Your task to perform on an android device: open the mobile data screen to see how much data has been used Image 0: 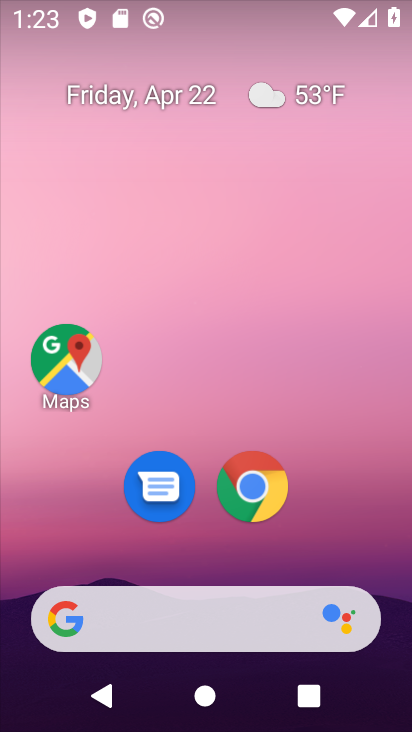
Step 0: drag from (173, 569) to (407, 79)
Your task to perform on an android device: open the mobile data screen to see how much data has been used Image 1: 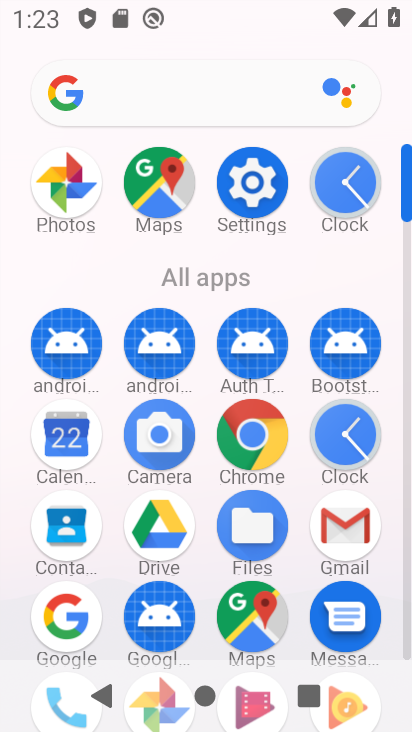
Step 1: click (235, 173)
Your task to perform on an android device: open the mobile data screen to see how much data has been used Image 2: 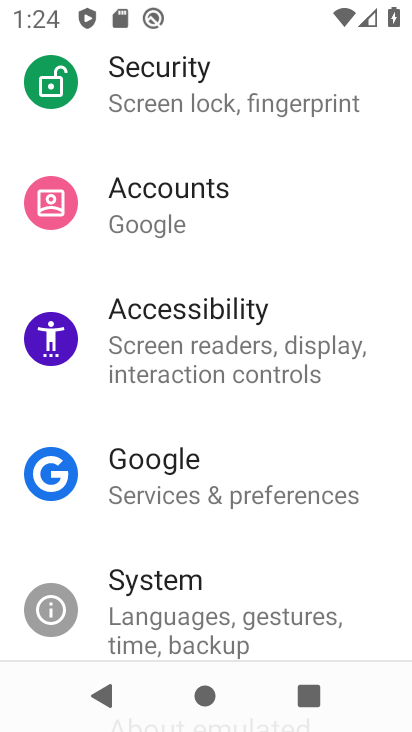
Step 2: drag from (230, 152) to (165, 557)
Your task to perform on an android device: open the mobile data screen to see how much data has been used Image 3: 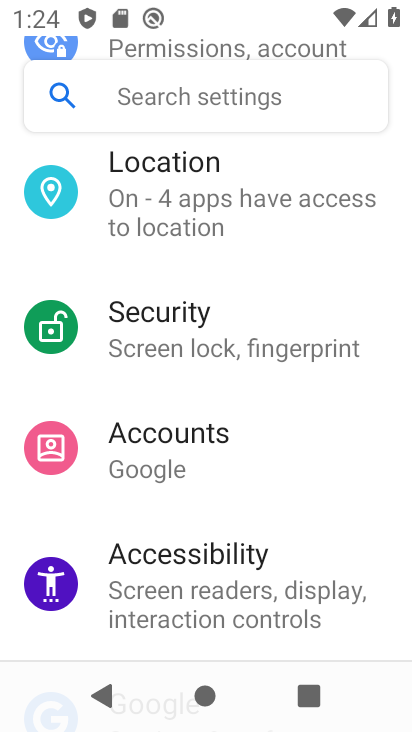
Step 3: drag from (115, 193) to (83, 716)
Your task to perform on an android device: open the mobile data screen to see how much data has been used Image 4: 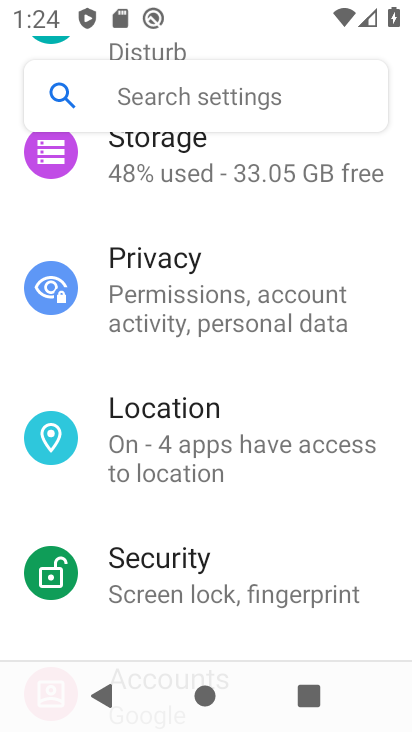
Step 4: drag from (179, 251) to (245, 672)
Your task to perform on an android device: open the mobile data screen to see how much data has been used Image 5: 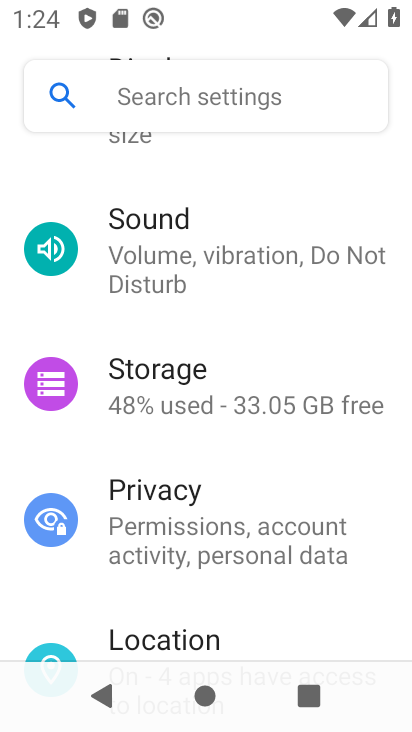
Step 5: drag from (237, 220) to (261, 581)
Your task to perform on an android device: open the mobile data screen to see how much data has been used Image 6: 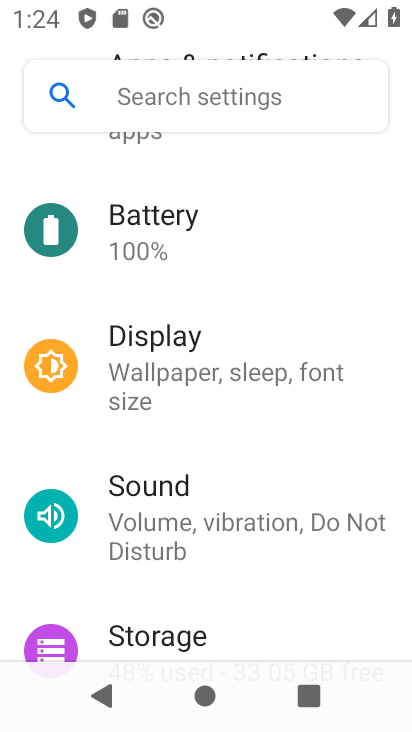
Step 6: drag from (188, 246) to (186, 678)
Your task to perform on an android device: open the mobile data screen to see how much data has been used Image 7: 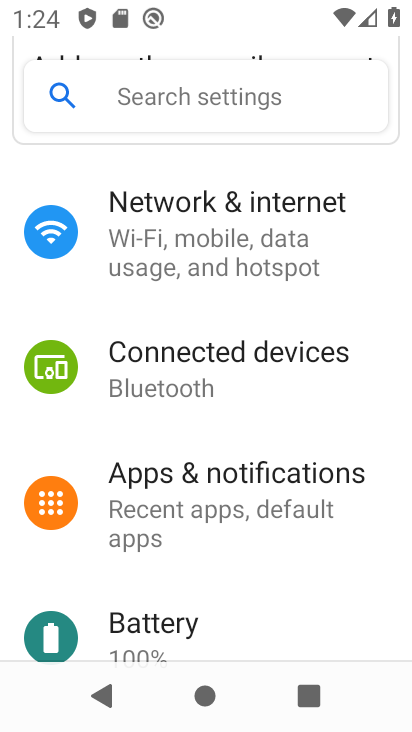
Step 7: click (186, 219)
Your task to perform on an android device: open the mobile data screen to see how much data has been used Image 8: 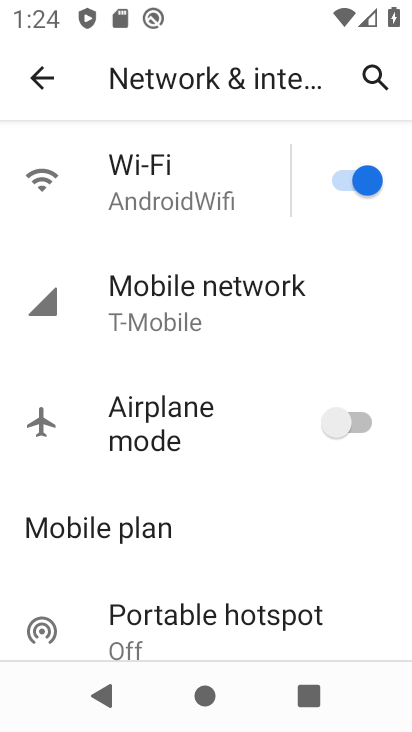
Step 8: click (268, 298)
Your task to perform on an android device: open the mobile data screen to see how much data has been used Image 9: 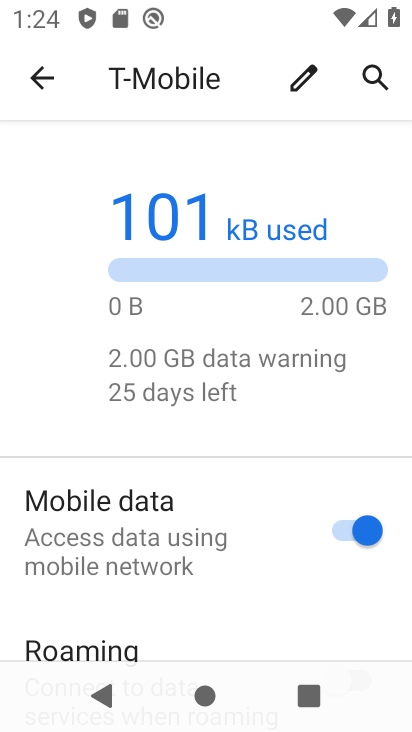
Step 9: task complete